Your task to perform on an android device: find snoozed emails in the gmail app Image 0: 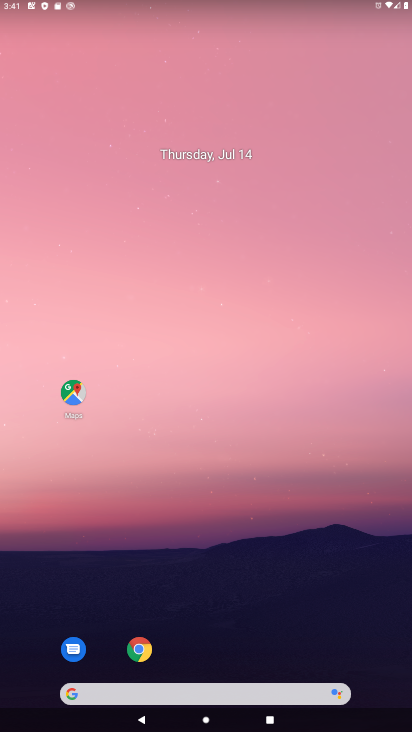
Step 0: drag from (223, 645) to (218, 135)
Your task to perform on an android device: find snoozed emails in the gmail app Image 1: 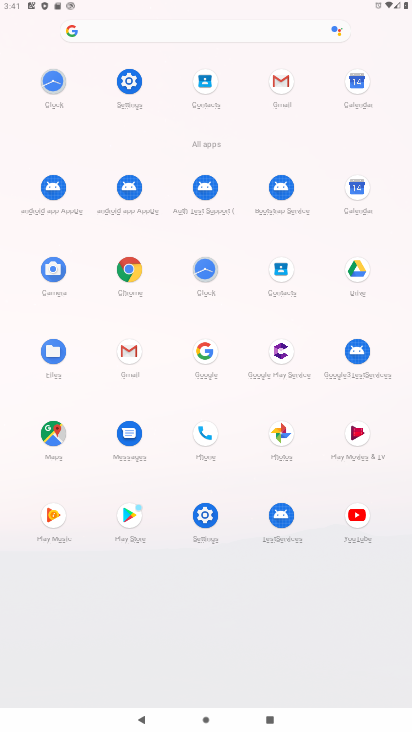
Step 1: click (123, 350)
Your task to perform on an android device: find snoozed emails in the gmail app Image 2: 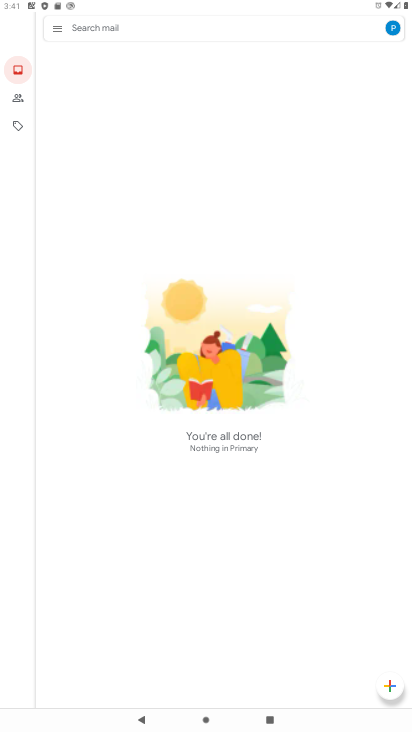
Step 2: click (56, 24)
Your task to perform on an android device: find snoozed emails in the gmail app Image 3: 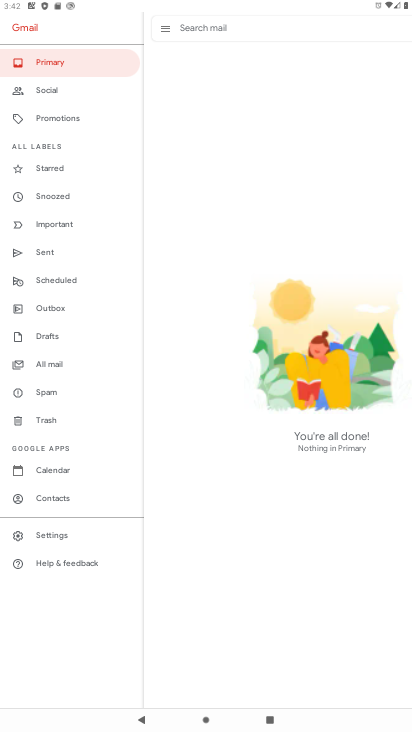
Step 3: click (74, 199)
Your task to perform on an android device: find snoozed emails in the gmail app Image 4: 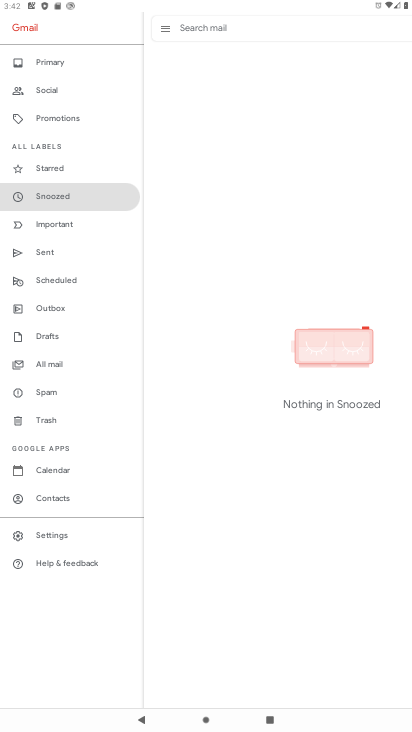
Step 4: task complete